Your task to perform on an android device: Turn on the flashlight Image 0: 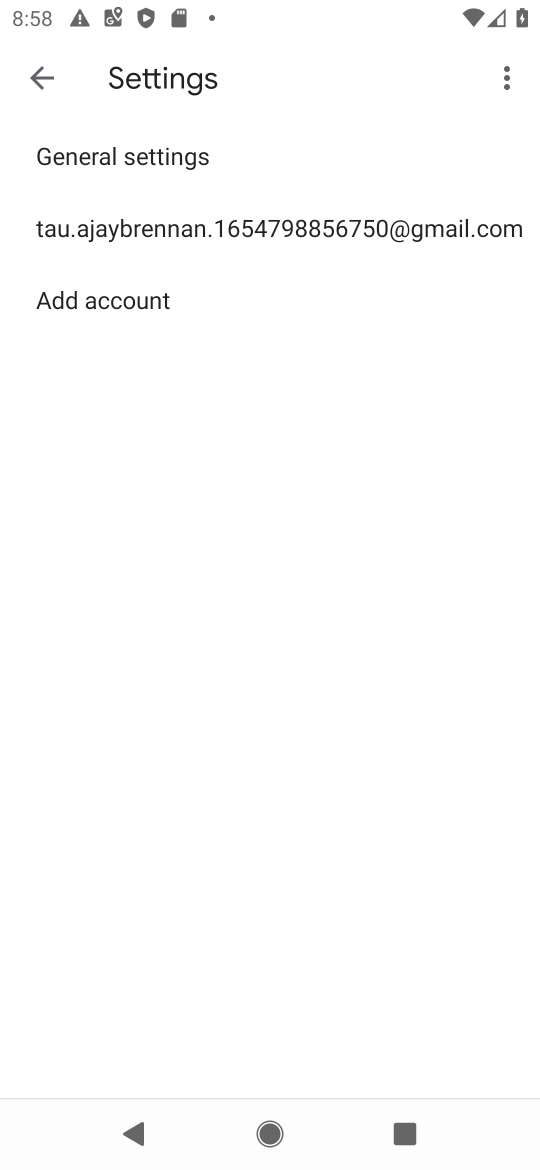
Step 0: press home button
Your task to perform on an android device: Turn on the flashlight Image 1: 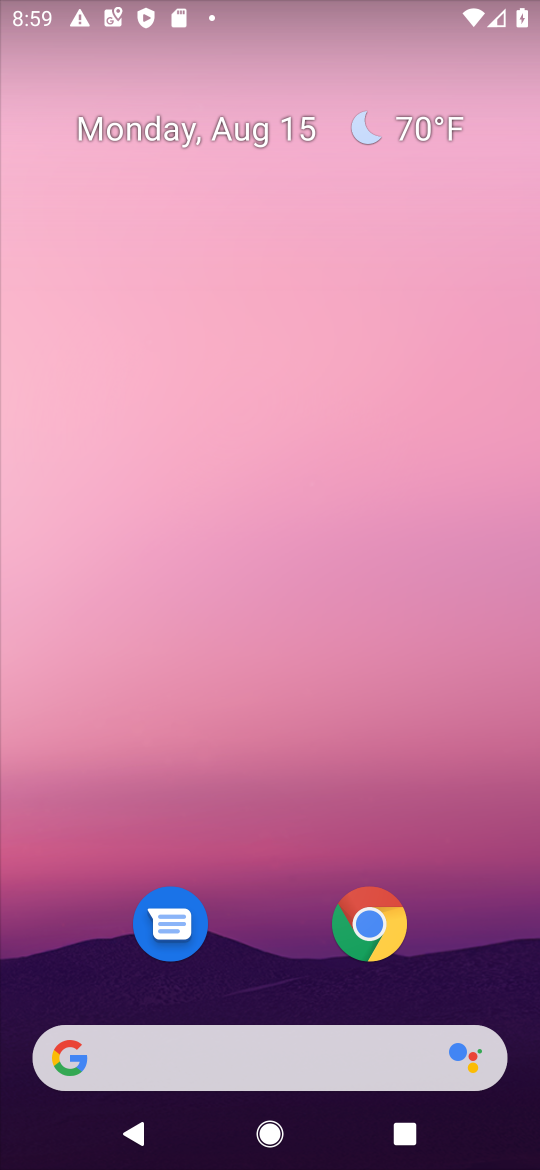
Step 1: drag from (331, 15) to (306, 1001)
Your task to perform on an android device: Turn on the flashlight Image 2: 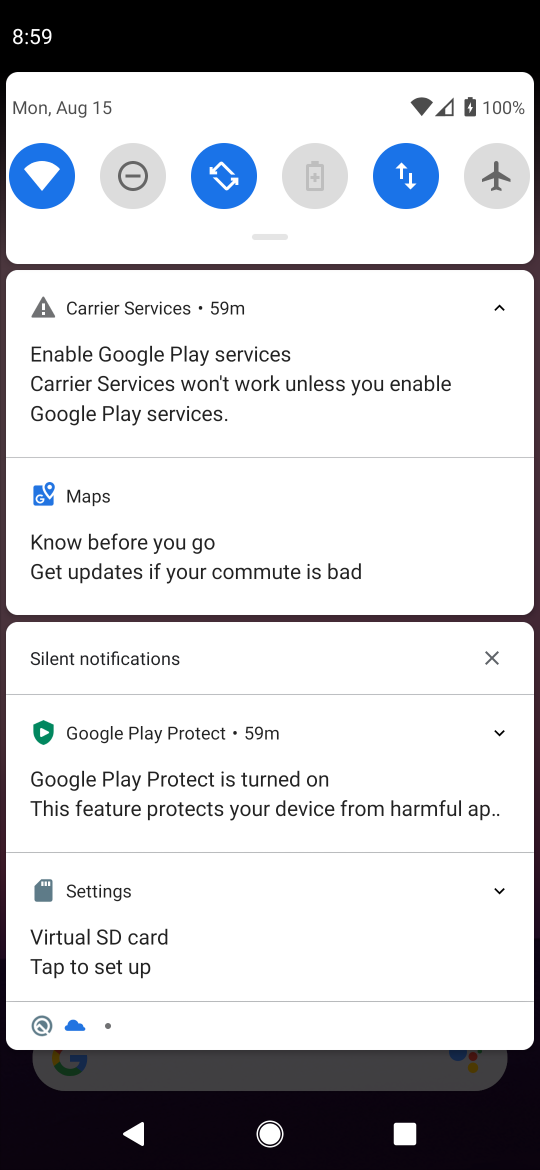
Step 2: drag from (260, 229) to (225, 753)
Your task to perform on an android device: Turn on the flashlight Image 3: 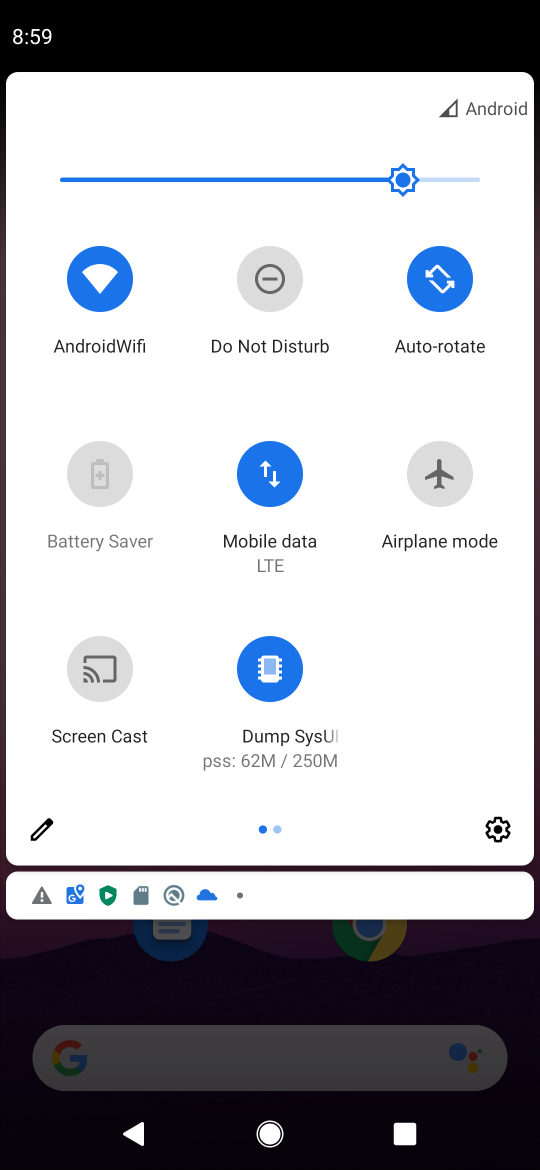
Step 3: click (36, 828)
Your task to perform on an android device: Turn on the flashlight Image 4: 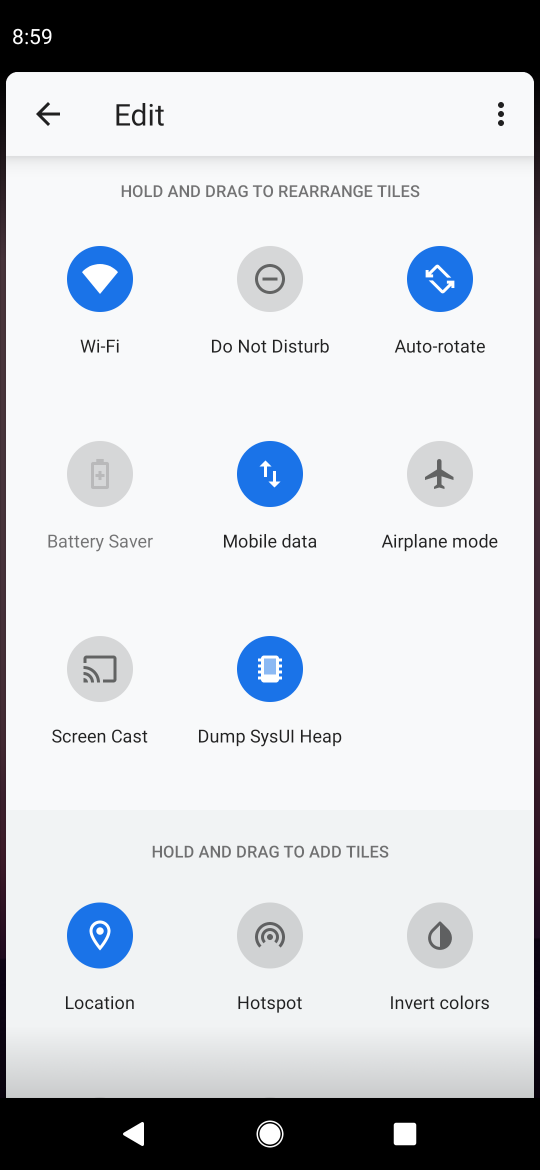
Step 4: task complete